Your task to perform on an android device: Open Youtube and go to "Your channel" Image 0: 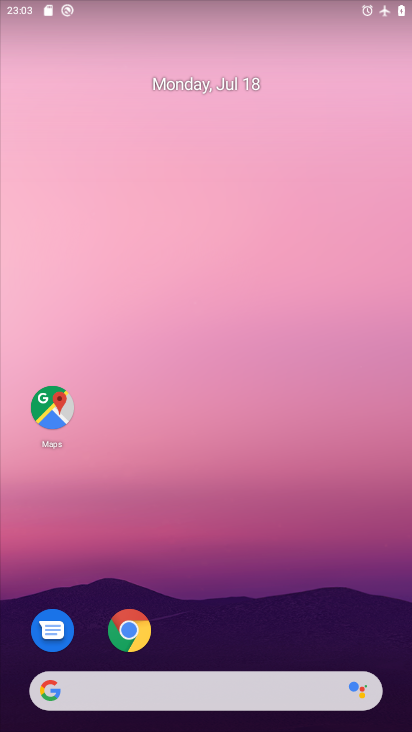
Step 0: drag from (215, 653) to (220, 55)
Your task to perform on an android device: Open Youtube and go to "Your channel" Image 1: 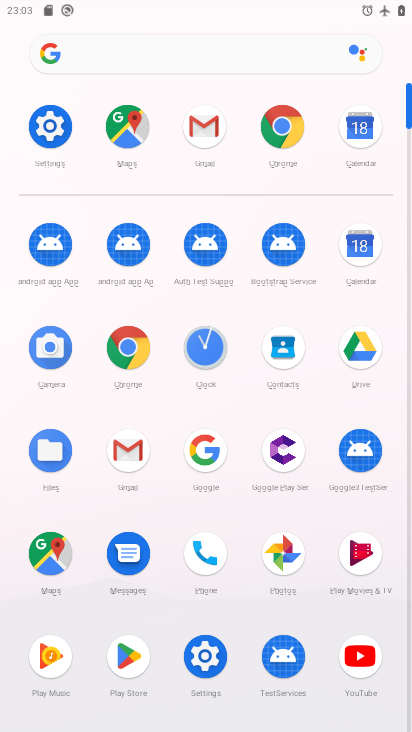
Step 1: click (364, 638)
Your task to perform on an android device: Open Youtube and go to "Your channel" Image 2: 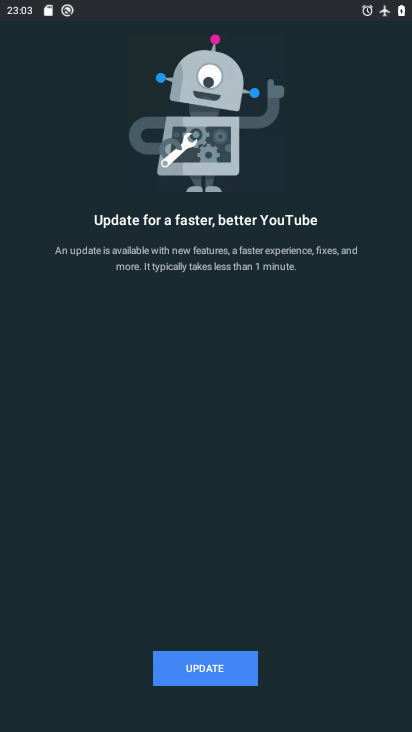
Step 2: task complete